Your task to perform on an android device: Go to CNN.com Image 0: 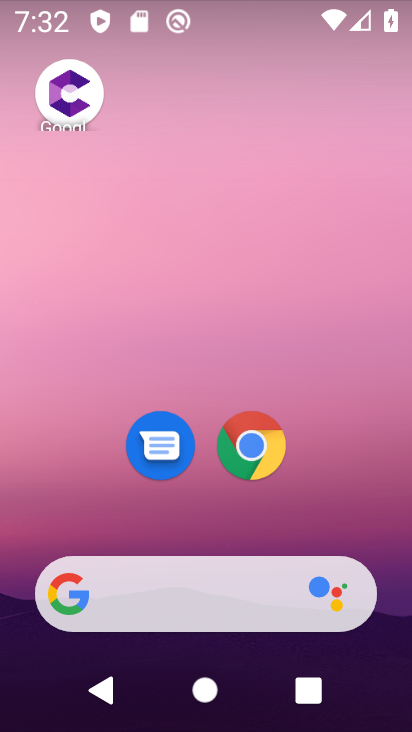
Step 0: press home button
Your task to perform on an android device: Go to CNN.com Image 1: 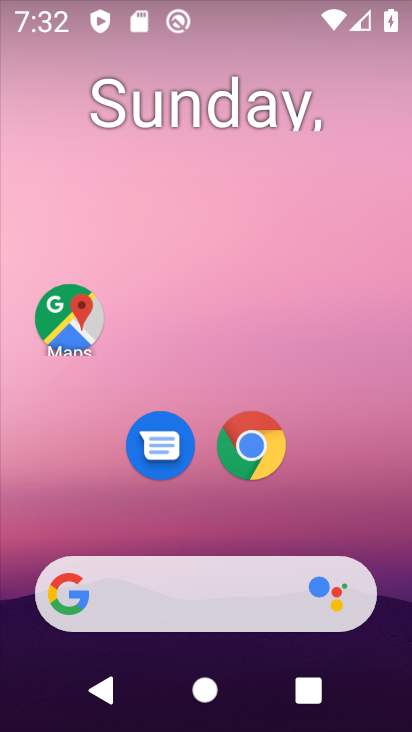
Step 1: click (238, 459)
Your task to perform on an android device: Go to CNN.com Image 2: 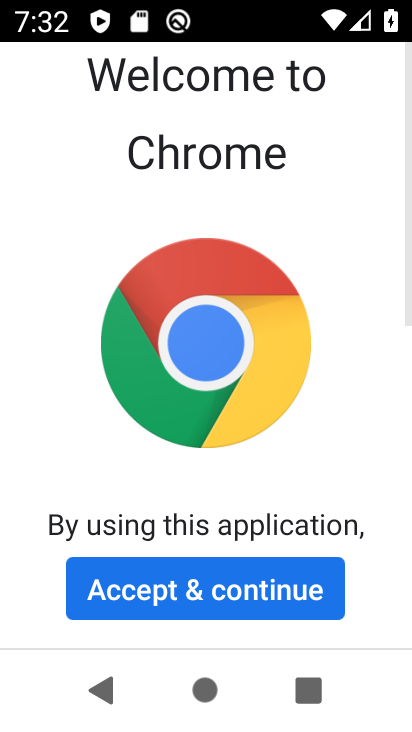
Step 2: click (179, 603)
Your task to perform on an android device: Go to CNN.com Image 3: 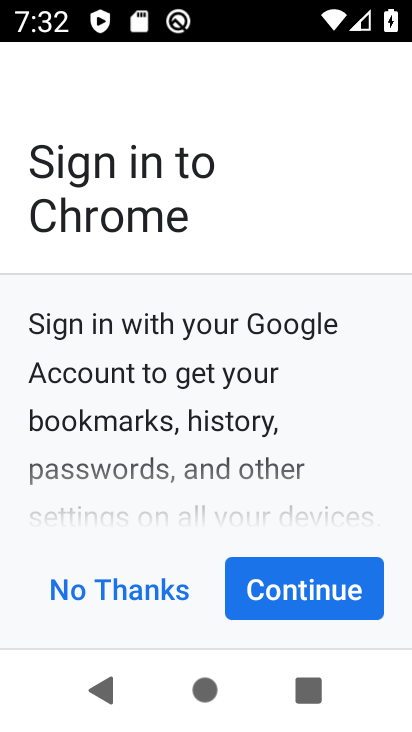
Step 3: click (158, 594)
Your task to perform on an android device: Go to CNN.com Image 4: 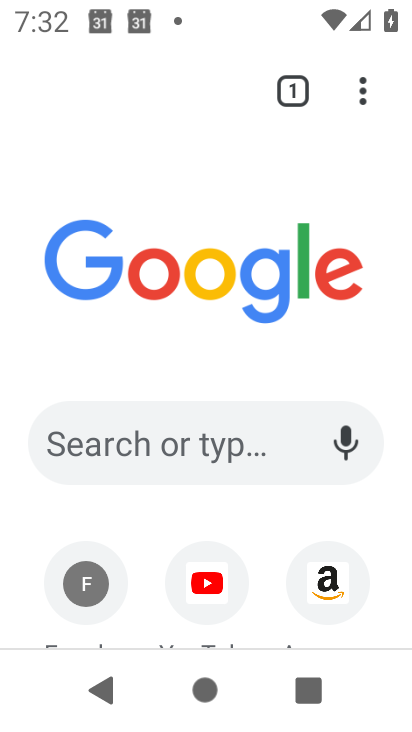
Step 4: drag from (5, 511) to (128, 124)
Your task to perform on an android device: Go to CNN.com Image 5: 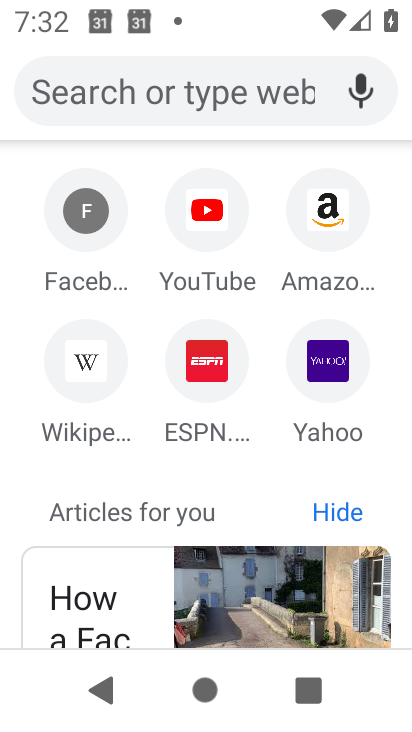
Step 5: click (149, 98)
Your task to perform on an android device: Go to CNN.com Image 6: 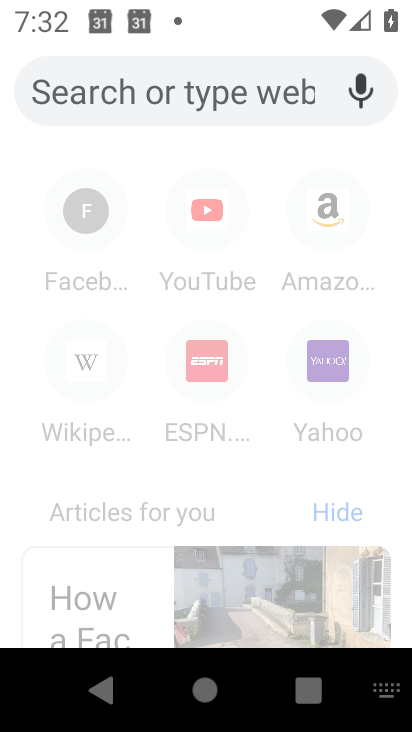
Step 6: type "CNN.com"
Your task to perform on an android device: Go to CNN.com Image 7: 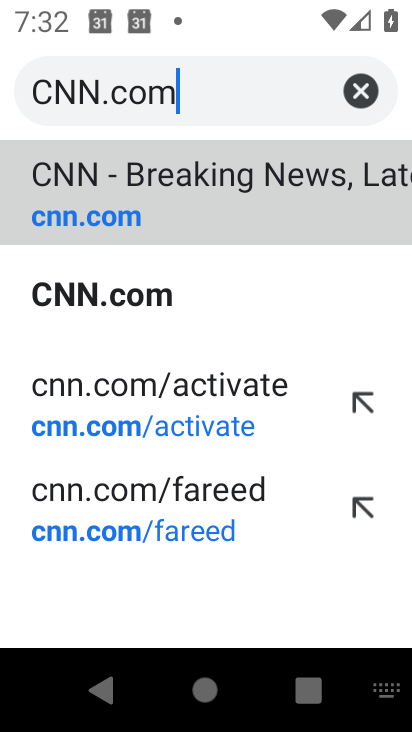
Step 7: type ""
Your task to perform on an android device: Go to CNN.com Image 8: 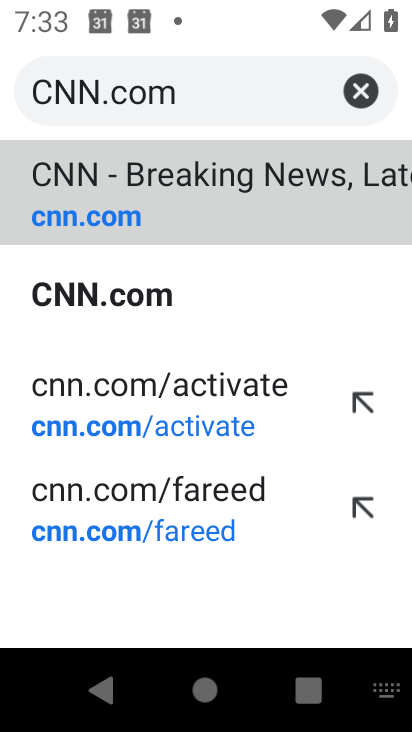
Step 8: click (123, 296)
Your task to perform on an android device: Go to CNN.com Image 9: 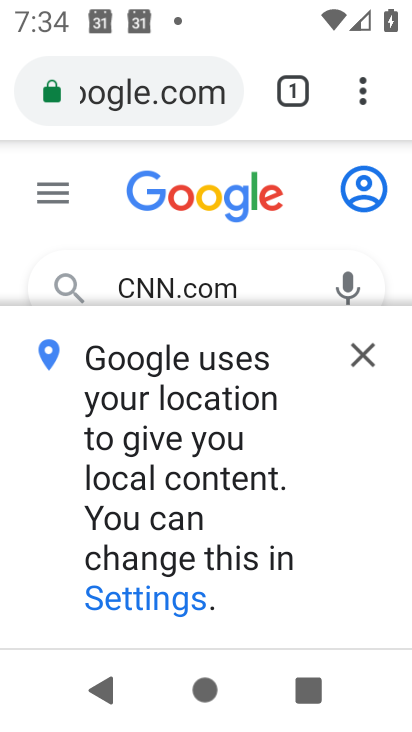
Step 9: click (356, 359)
Your task to perform on an android device: Go to CNN.com Image 10: 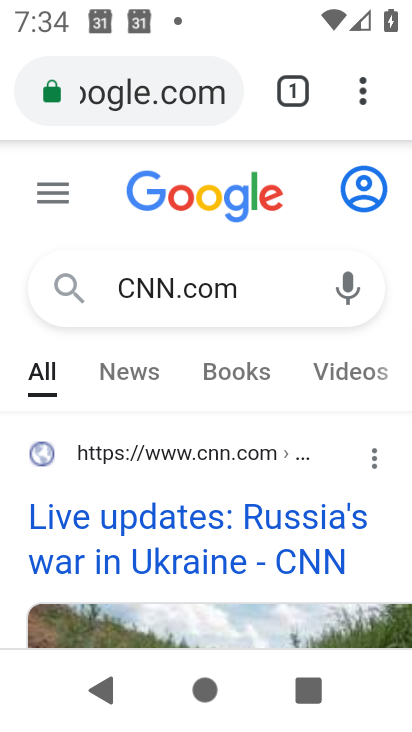
Step 10: task complete